Your task to perform on an android device: Go to location settings Image 0: 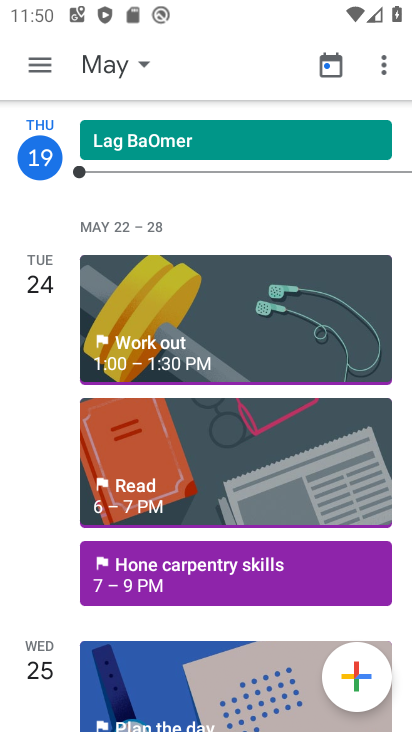
Step 0: press home button
Your task to perform on an android device: Go to location settings Image 1: 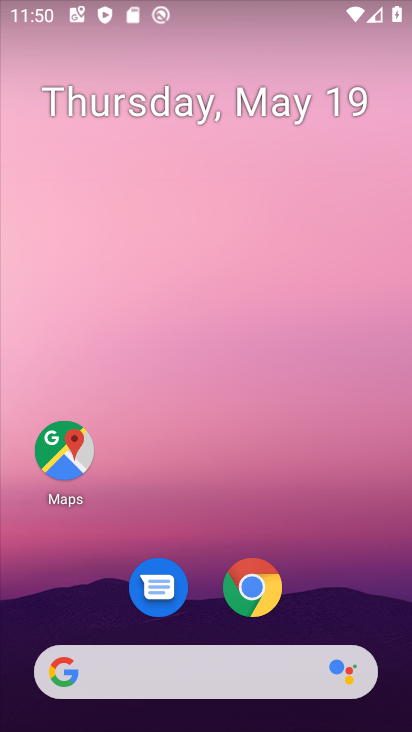
Step 1: drag from (264, 644) to (265, 60)
Your task to perform on an android device: Go to location settings Image 2: 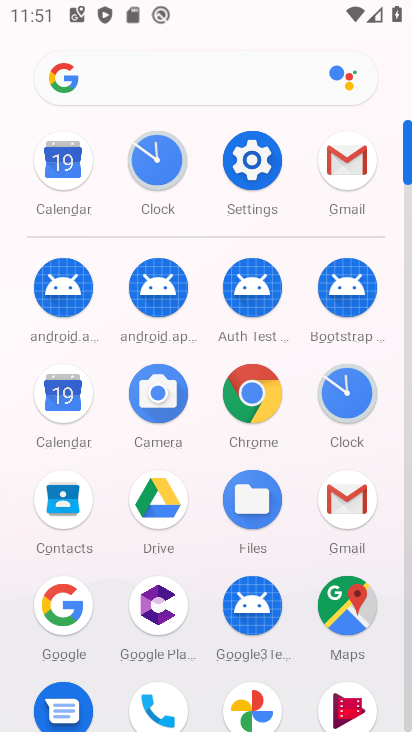
Step 2: click (246, 173)
Your task to perform on an android device: Go to location settings Image 3: 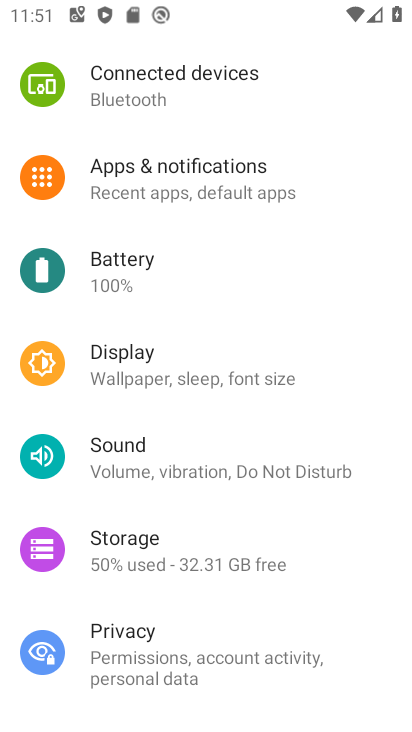
Step 3: drag from (207, 668) to (166, 196)
Your task to perform on an android device: Go to location settings Image 4: 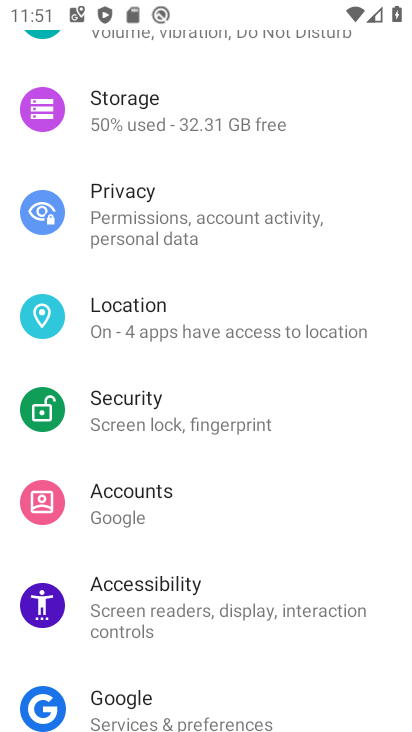
Step 4: click (144, 328)
Your task to perform on an android device: Go to location settings Image 5: 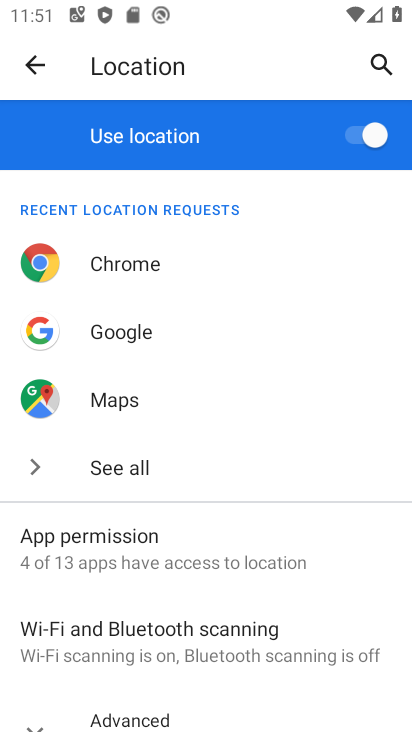
Step 5: task complete